Your task to perform on an android device: turn pop-ups on in chrome Image 0: 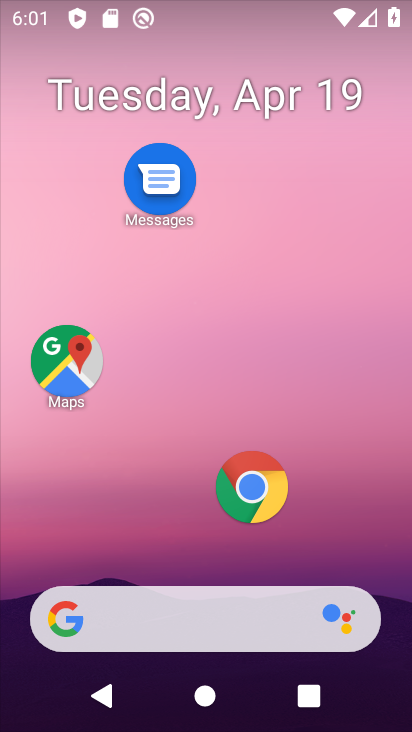
Step 0: click (251, 482)
Your task to perform on an android device: turn pop-ups on in chrome Image 1: 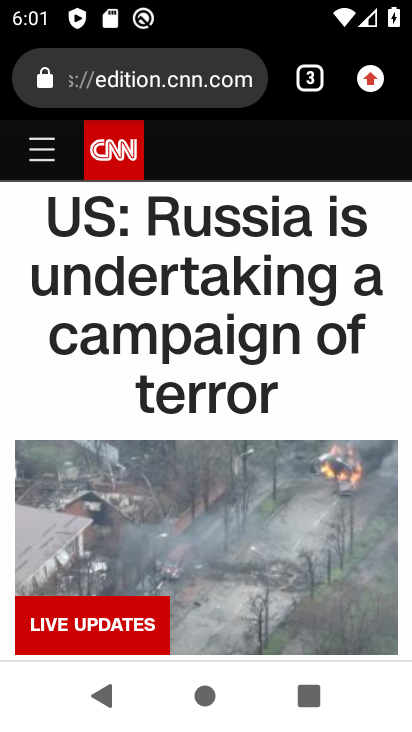
Step 1: click (368, 74)
Your task to perform on an android device: turn pop-ups on in chrome Image 2: 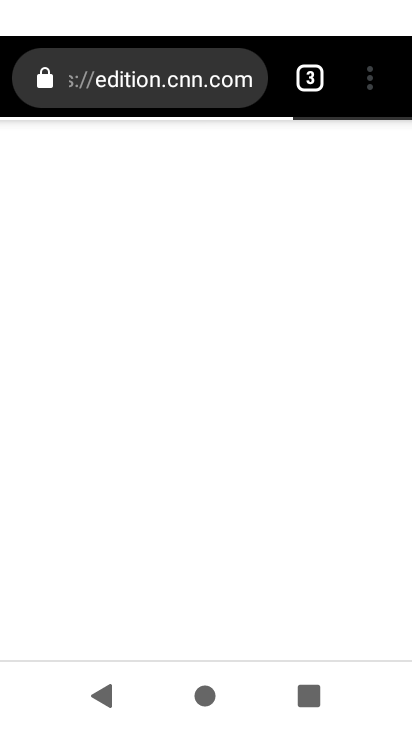
Step 2: click (368, 74)
Your task to perform on an android device: turn pop-ups on in chrome Image 3: 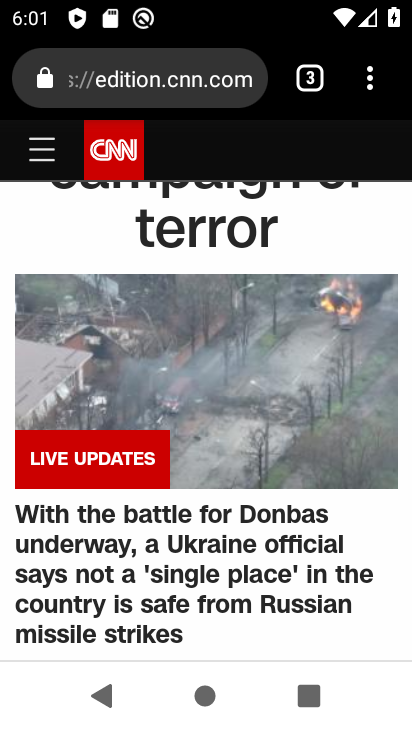
Step 3: click (372, 84)
Your task to perform on an android device: turn pop-ups on in chrome Image 4: 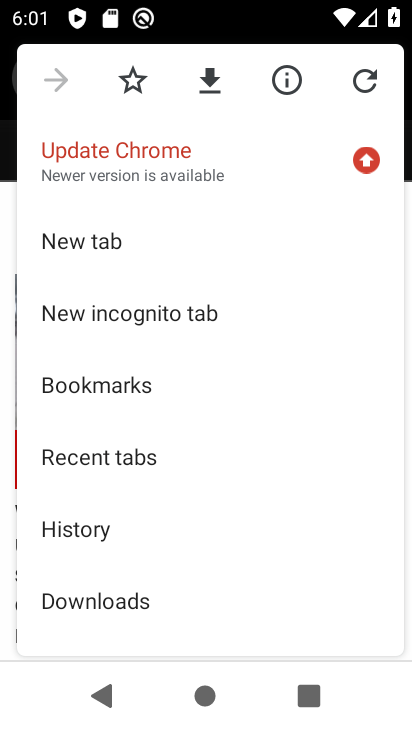
Step 4: drag from (177, 582) to (206, 131)
Your task to perform on an android device: turn pop-ups on in chrome Image 5: 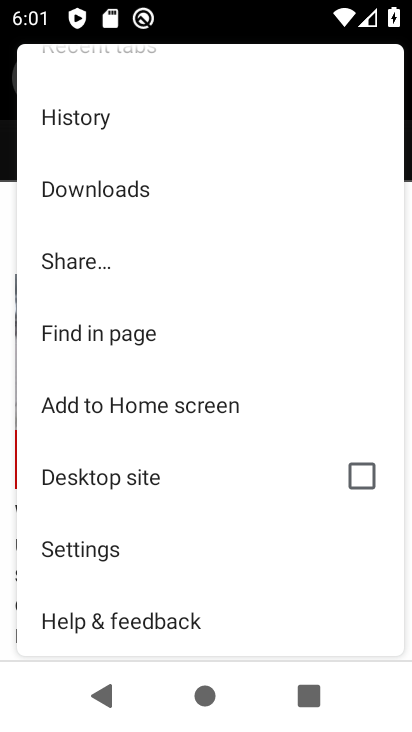
Step 5: click (132, 553)
Your task to perform on an android device: turn pop-ups on in chrome Image 6: 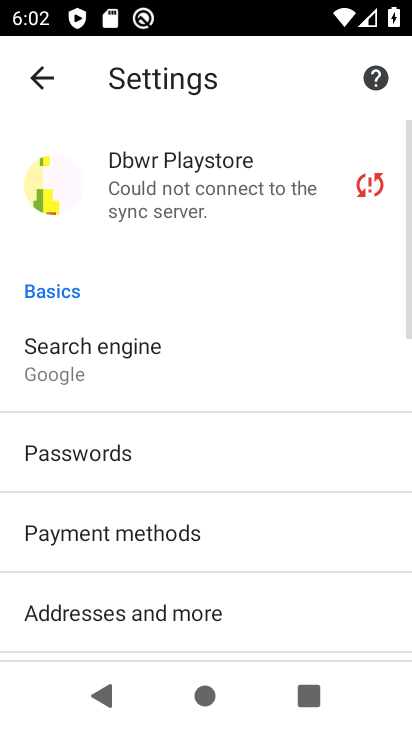
Step 6: drag from (250, 606) to (279, 132)
Your task to perform on an android device: turn pop-ups on in chrome Image 7: 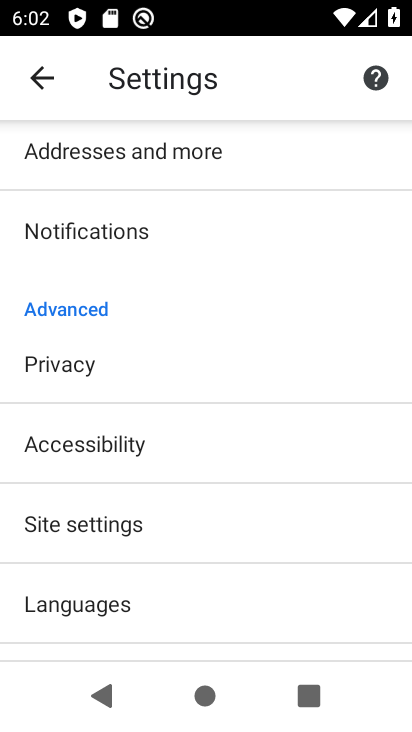
Step 7: click (161, 529)
Your task to perform on an android device: turn pop-ups on in chrome Image 8: 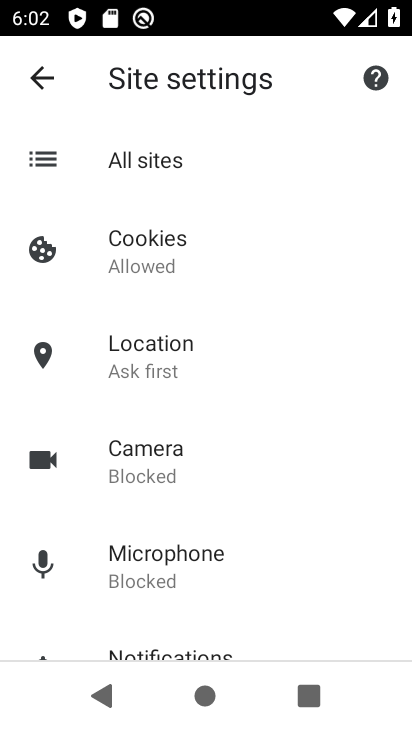
Step 8: drag from (251, 617) to (266, 149)
Your task to perform on an android device: turn pop-ups on in chrome Image 9: 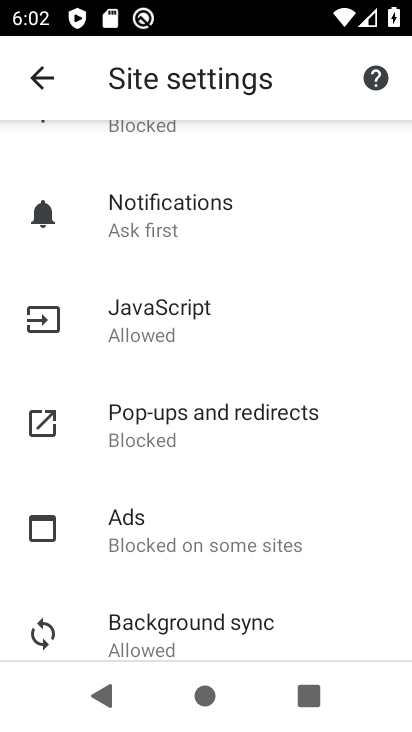
Step 9: click (195, 433)
Your task to perform on an android device: turn pop-ups on in chrome Image 10: 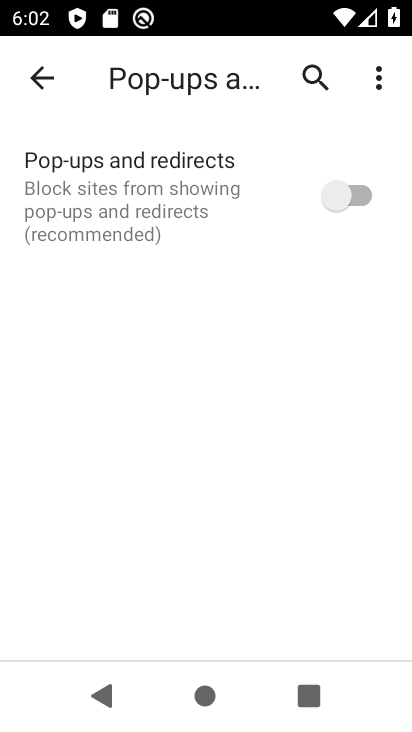
Step 10: click (363, 196)
Your task to perform on an android device: turn pop-ups on in chrome Image 11: 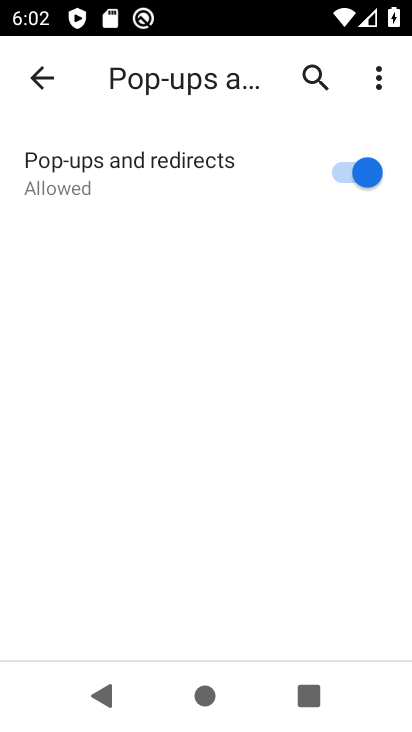
Step 11: task complete